Your task to perform on an android device: turn off notifications settings in the gmail app Image 0: 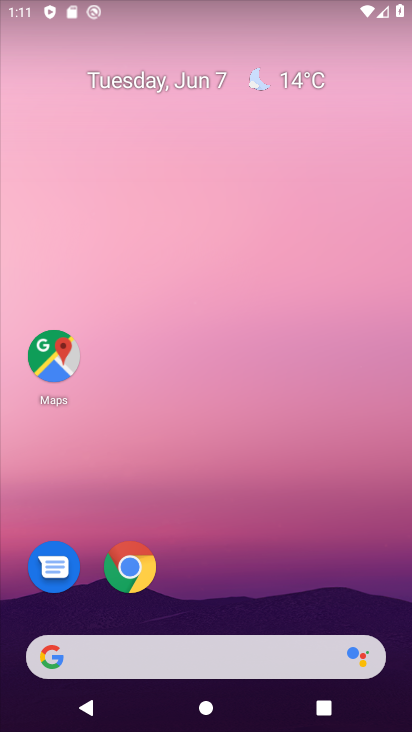
Step 0: drag from (227, 587) to (221, 140)
Your task to perform on an android device: turn off notifications settings in the gmail app Image 1: 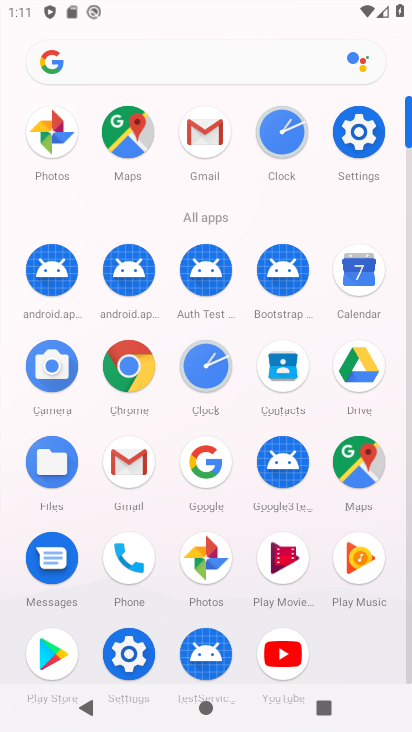
Step 1: click (133, 466)
Your task to perform on an android device: turn off notifications settings in the gmail app Image 2: 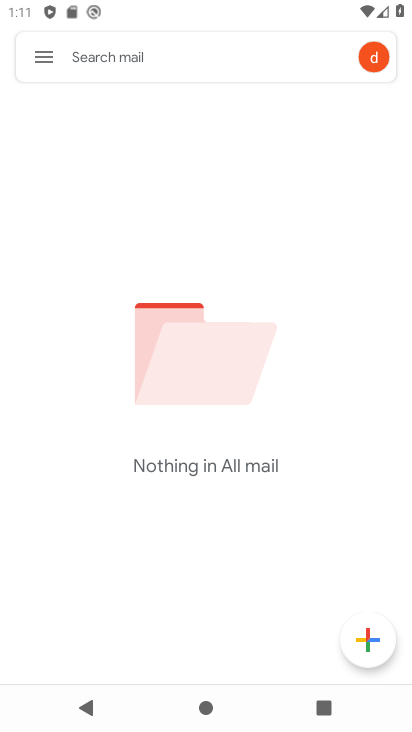
Step 2: click (43, 54)
Your task to perform on an android device: turn off notifications settings in the gmail app Image 3: 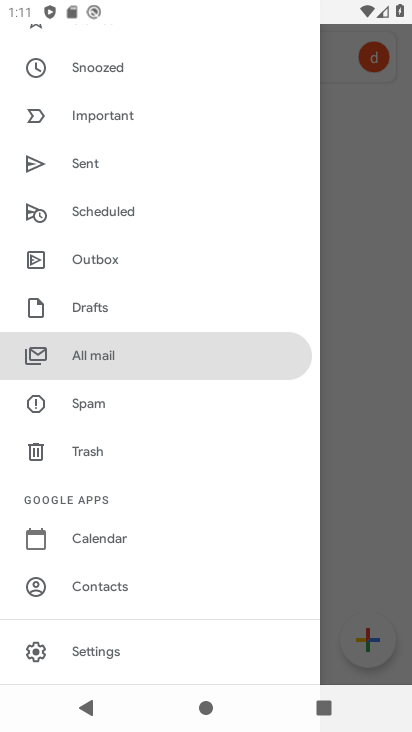
Step 3: click (124, 647)
Your task to perform on an android device: turn off notifications settings in the gmail app Image 4: 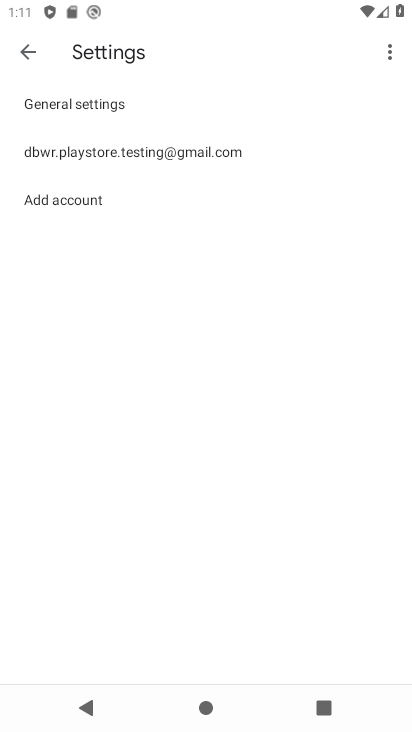
Step 4: click (206, 152)
Your task to perform on an android device: turn off notifications settings in the gmail app Image 5: 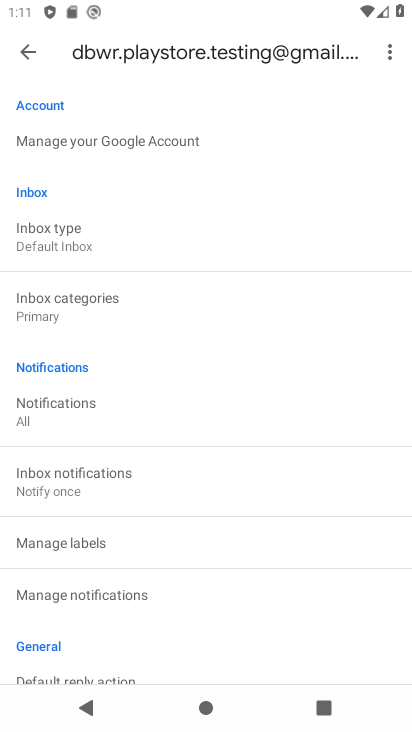
Step 5: click (63, 413)
Your task to perform on an android device: turn off notifications settings in the gmail app Image 6: 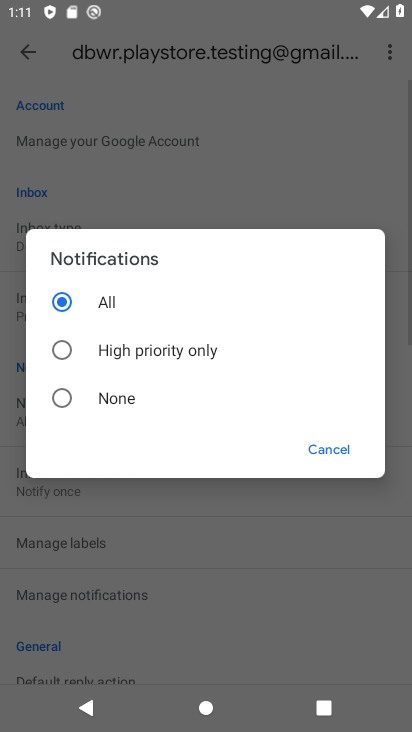
Step 6: click (76, 392)
Your task to perform on an android device: turn off notifications settings in the gmail app Image 7: 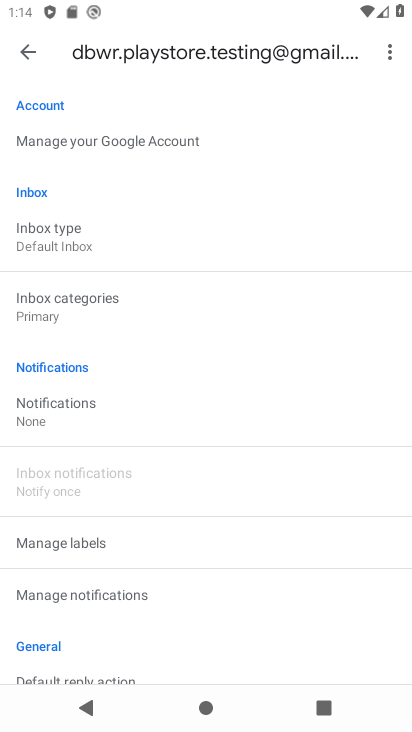
Step 7: task complete